Your task to perform on an android device: turn on data saver in the chrome app Image 0: 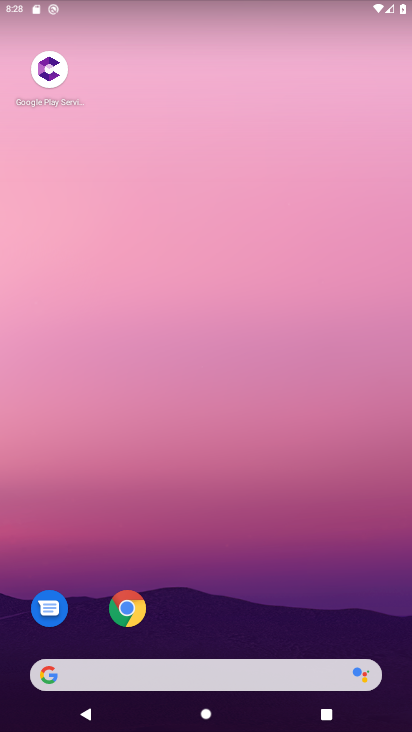
Step 0: click (127, 606)
Your task to perform on an android device: turn on data saver in the chrome app Image 1: 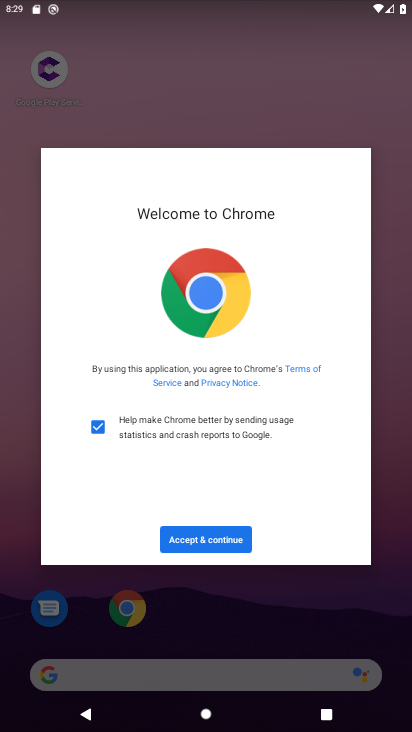
Step 1: click (204, 541)
Your task to perform on an android device: turn on data saver in the chrome app Image 2: 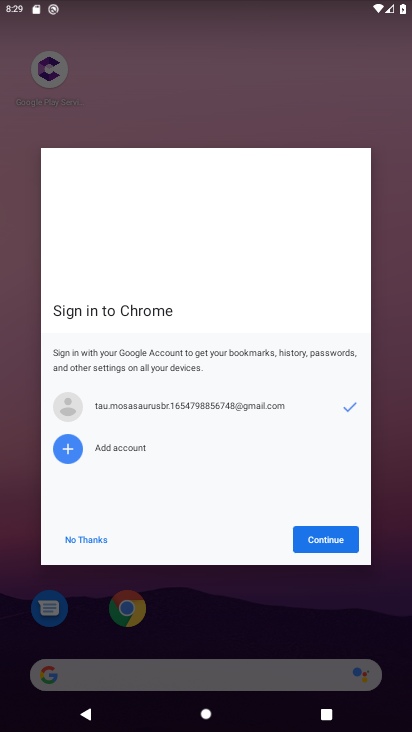
Step 2: click (342, 535)
Your task to perform on an android device: turn on data saver in the chrome app Image 3: 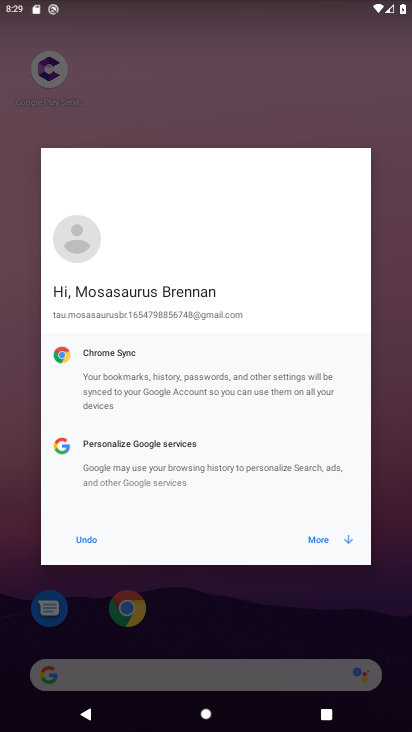
Step 3: click (323, 536)
Your task to perform on an android device: turn on data saver in the chrome app Image 4: 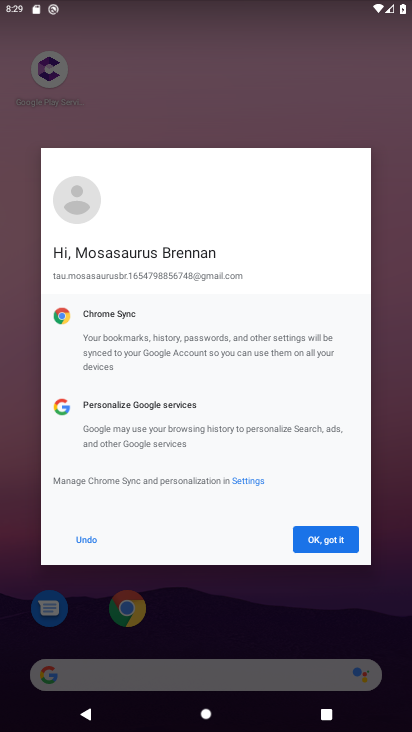
Step 4: click (323, 536)
Your task to perform on an android device: turn on data saver in the chrome app Image 5: 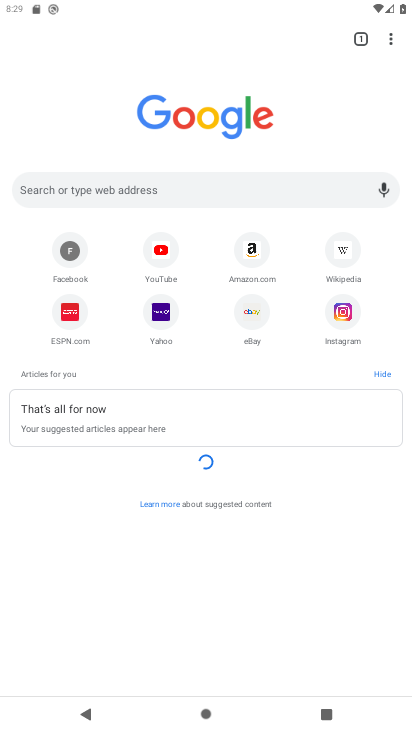
Step 5: click (389, 39)
Your task to perform on an android device: turn on data saver in the chrome app Image 6: 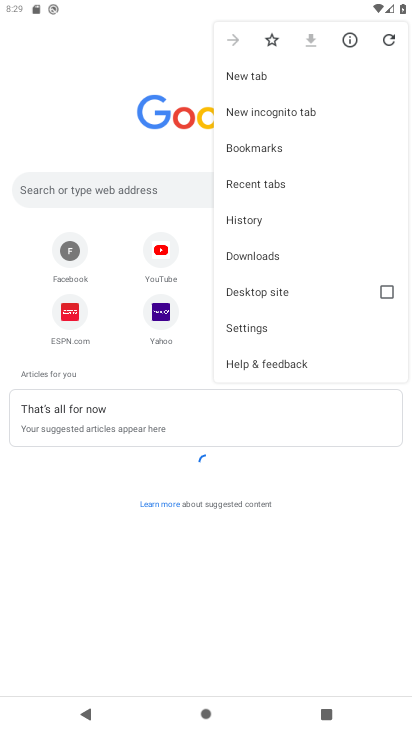
Step 6: click (250, 328)
Your task to perform on an android device: turn on data saver in the chrome app Image 7: 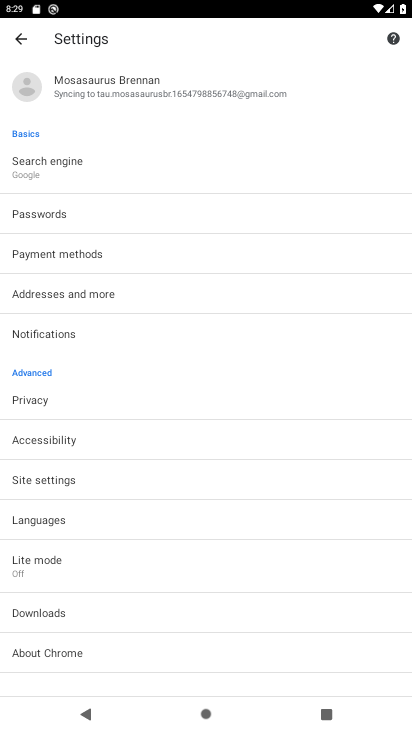
Step 7: click (77, 565)
Your task to perform on an android device: turn on data saver in the chrome app Image 8: 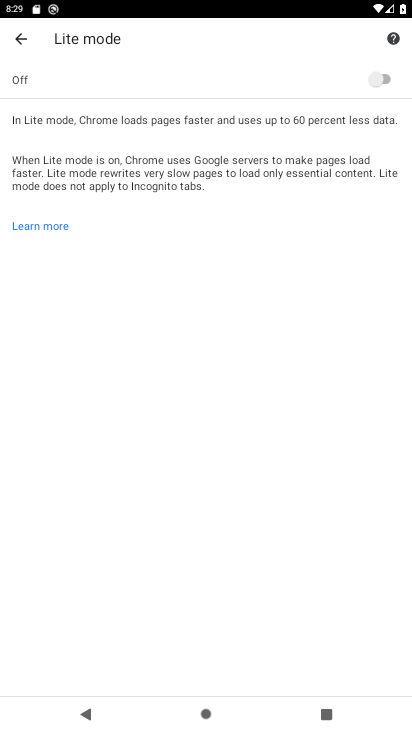
Step 8: click (381, 78)
Your task to perform on an android device: turn on data saver in the chrome app Image 9: 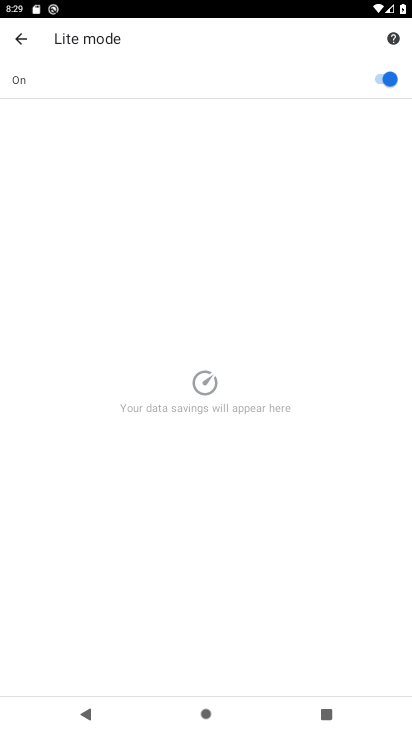
Step 9: task complete